Your task to perform on an android device: What's on my calendar today? Image 0: 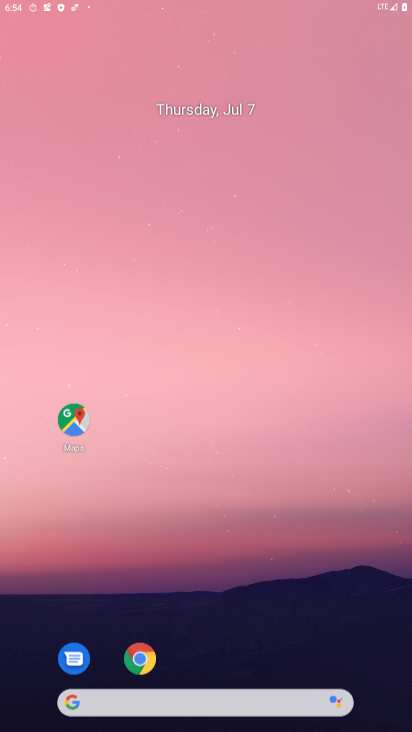
Step 0: drag from (377, 665) to (273, 65)
Your task to perform on an android device: What's on my calendar today? Image 1: 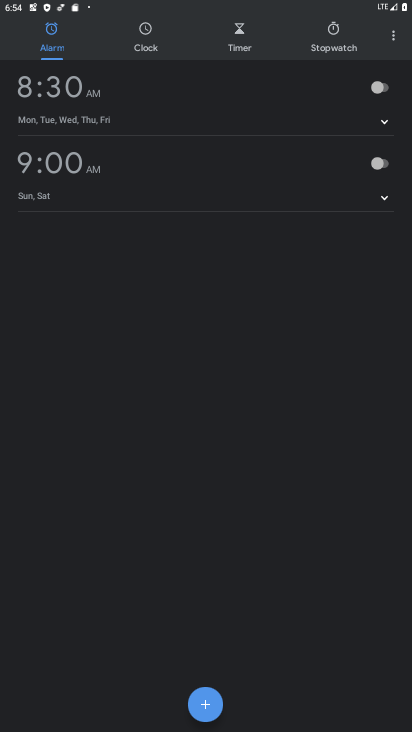
Step 1: press home button
Your task to perform on an android device: What's on my calendar today? Image 2: 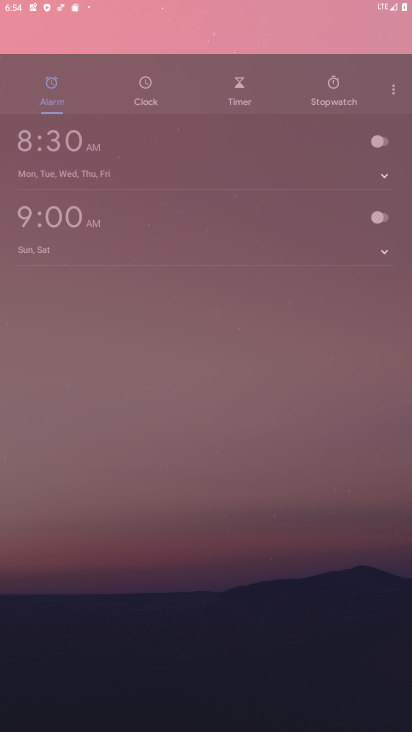
Step 2: drag from (390, 686) to (248, 99)
Your task to perform on an android device: What's on my calendar today? Image 3: 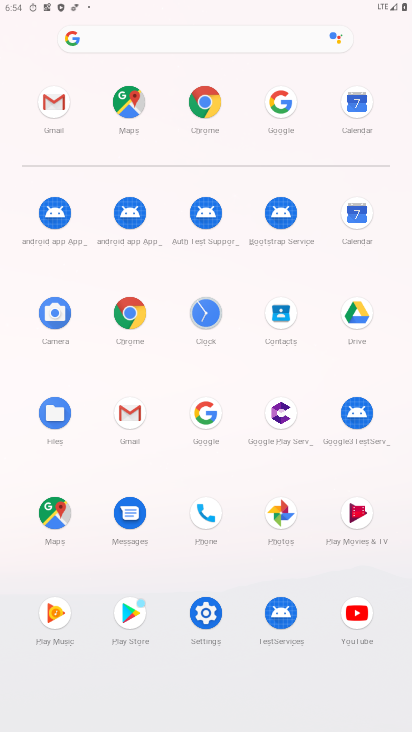
Step 3: click (362, 217)
Your task to perform on an android device: What's on my calendar today? Image 4: 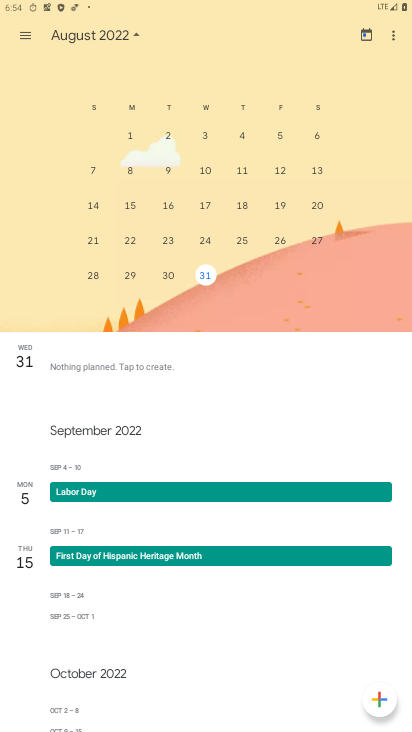
Step 4: click (130, 163)
Your task to perform on an android device: What's on my calendar today? Image 5: 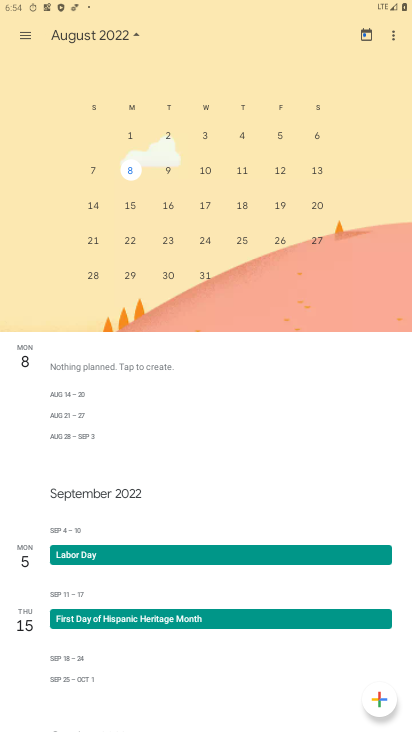
Step 5: task complete